Your task to perform on an android device: What's on my calendar tomorrow? Image 0: 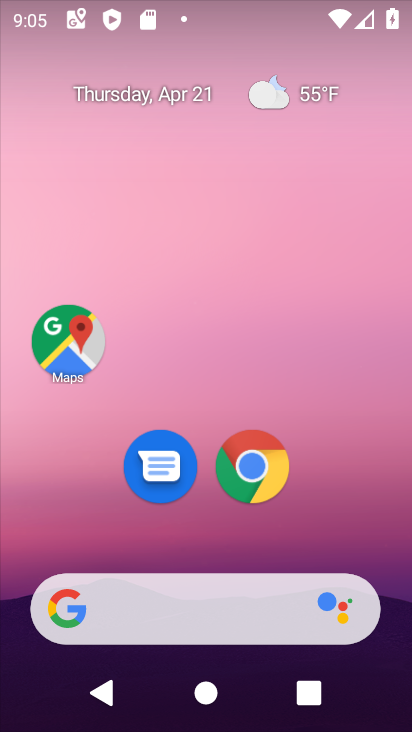
Step 0: click (60, 354)
Your task to perform on an android device: What's on my calendar tomorrow? Image 1: 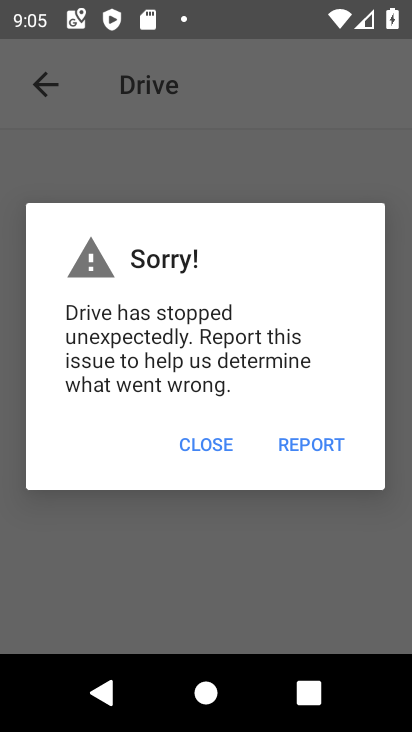
Step 1: press home button
Your task to perform on an android device: What's on my calendar tomorrow? Image 2: 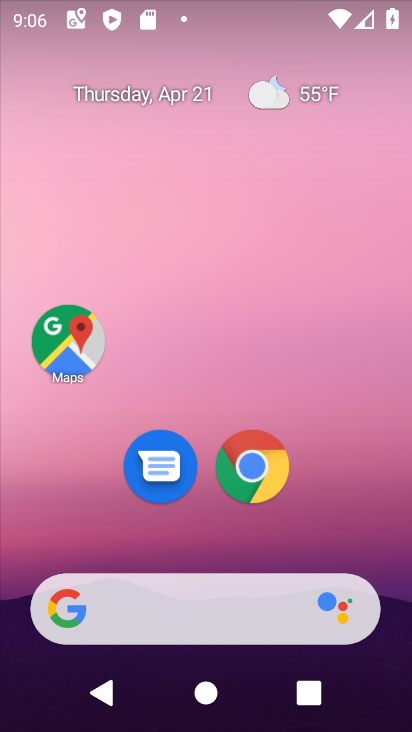
Step 2: drag from (333, 490) to (331, 73)
Your task to perform on an android device: What's on my calendar tomorrow? Image 3: 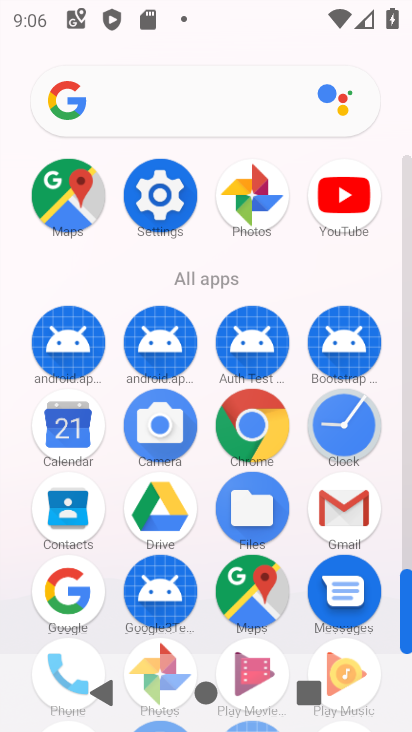
Step 3: click (72, 441)
Your task to perform on an android device: What's on my calendar tomorrow? Image 4: 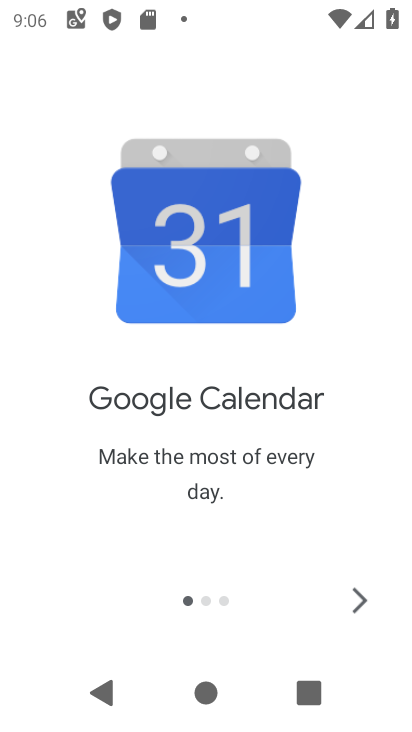
Step 4: click (359, 605)
Your task to perform on an android device: What's on my calendar tomorrow? Image 5: 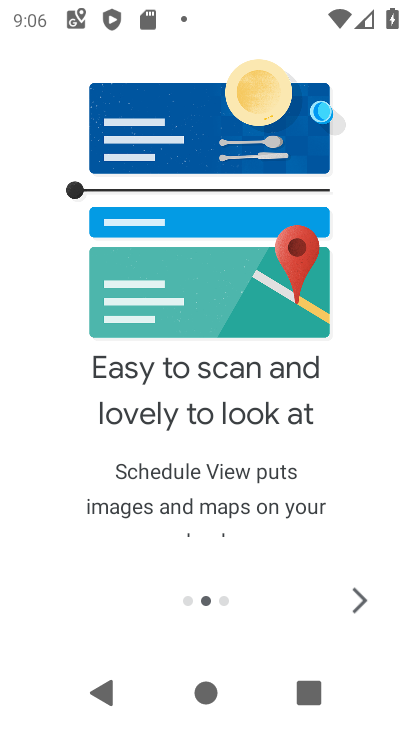
Step 5: click (359, 605)
Your task to perform on an android device: What's on my calendar tomorrow? Image 6: 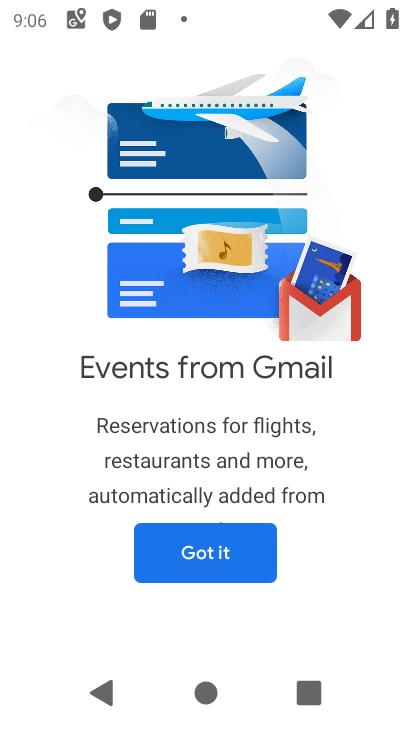
Step 6: click (184, 561)
Your task to perform on an android device: What's on my calendar tomorrow? Image 7: 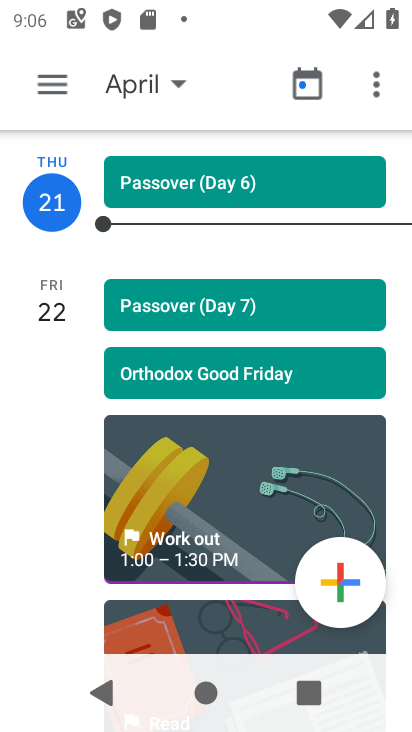
Step 7: click (154, 77)
Your task to perform on an android device: What's on my calendar tomorrow? Image 8: 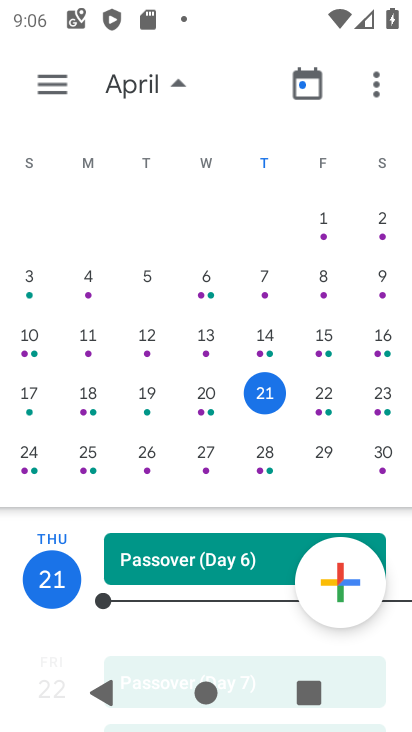
Step 8: click (325, 411)
Your task to perform on an android device: What's on my calendar tomorrow? Image 9: 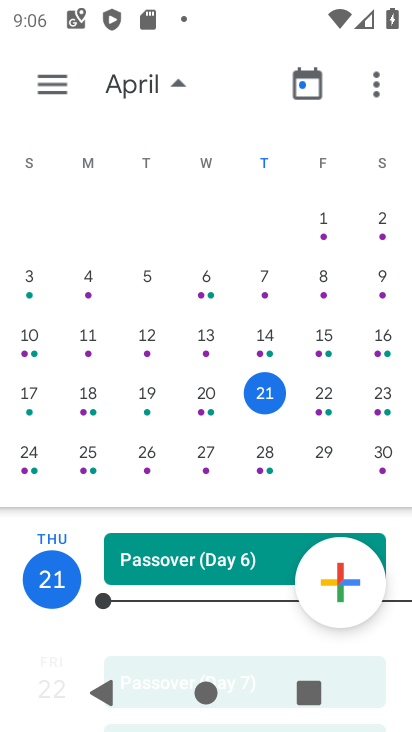
Step 9: task complete